Your task to perform on an android device: find snoozed emails in the gmail app Image 0: 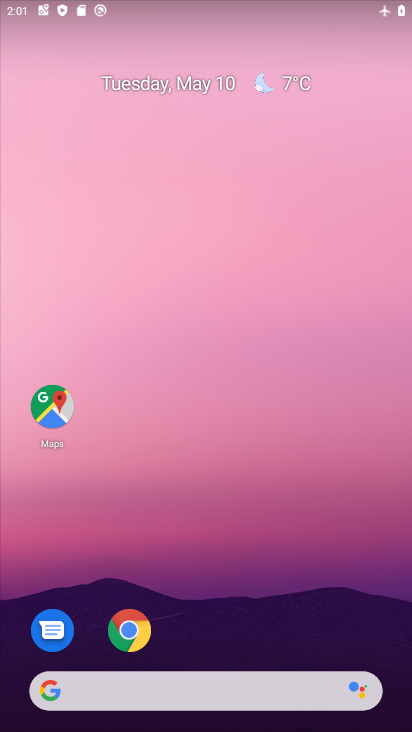
Step 0: drag from (226, 528) to (149, 0)
Your task to perform on an android device: find snoozed emails in the gmail app Image 1: 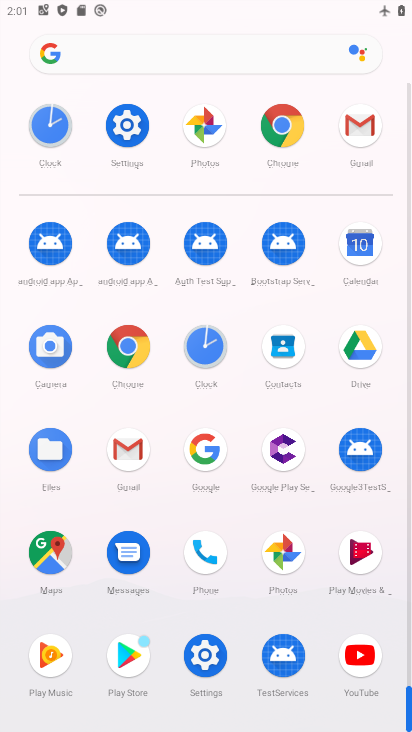
Step 1: drag from (9, 525) to (18, 281)
Your task to perform on an android device: find snoozed emails in the gmail app Image 2: 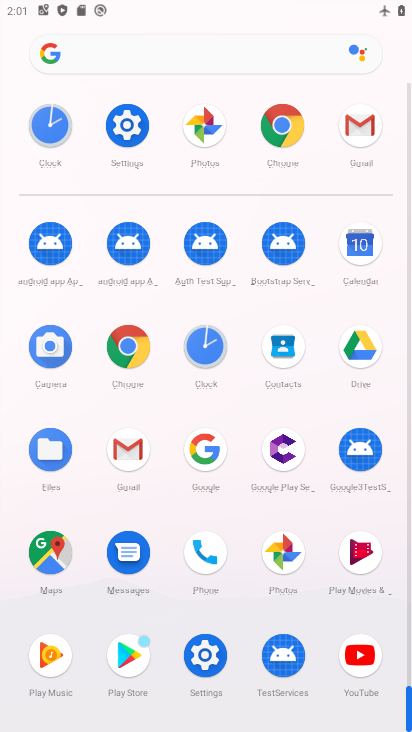
Step 2: click (126, 439)
Your task to perform on an android device: find snoozed emails in the gmail app Image 3: 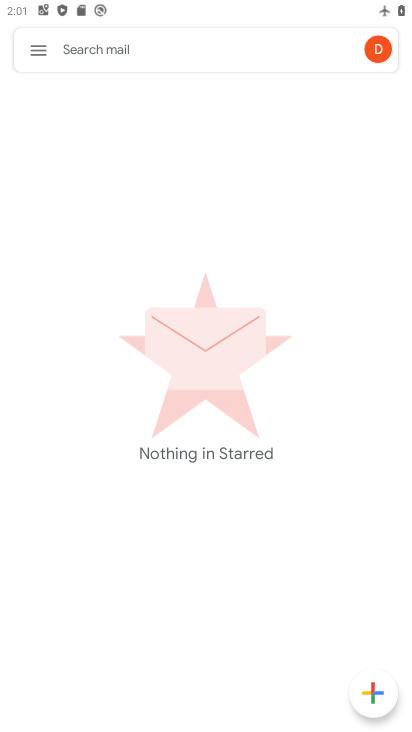
Step 3: click (42, 60)
Your task to perform on an android device: find snoozed emails in the gmail app Image 4: 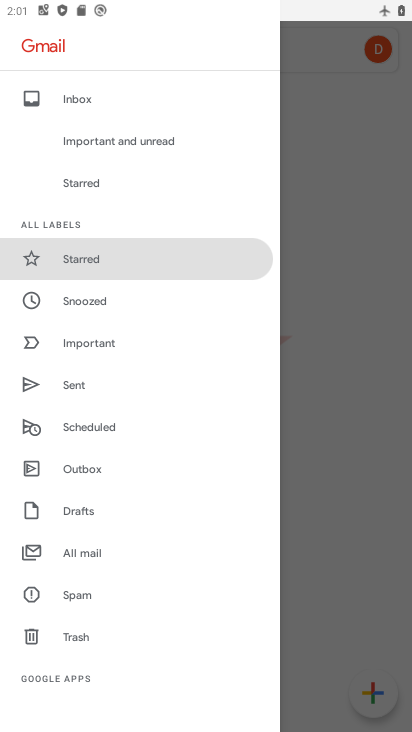
Step 4: click (124, 303)
Your task to perform on an android device: find snoozed emails in the gmail app Image 5: 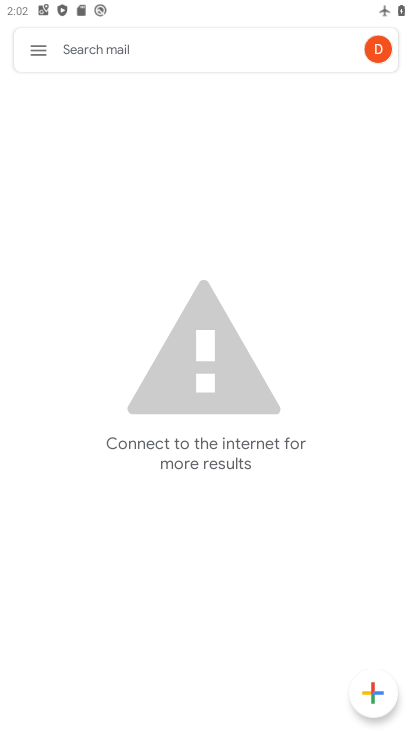
Step 5: task complete